Your task to perform on an android device: turn on airplane mode Image 0: 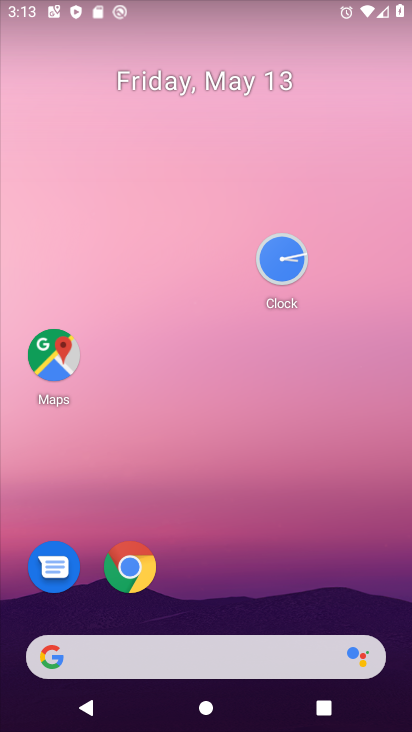
Step 0: click (89, 571)
Your task to perform on an android device: turn on airplane mode Image 1: 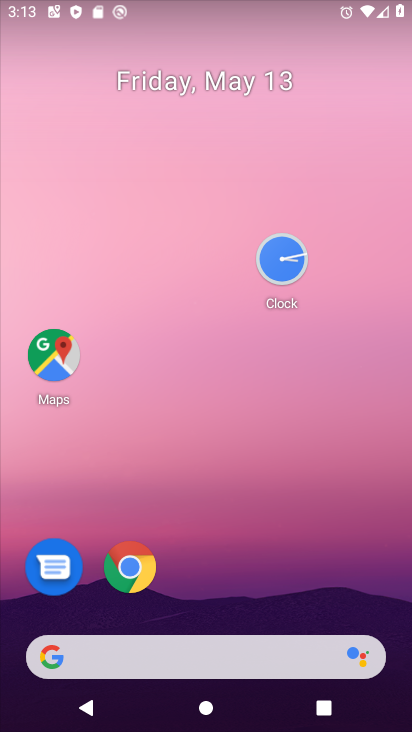
Step 1: click (136, 573)
Your task to perform on an android device: turn on airplane mode Image 2: 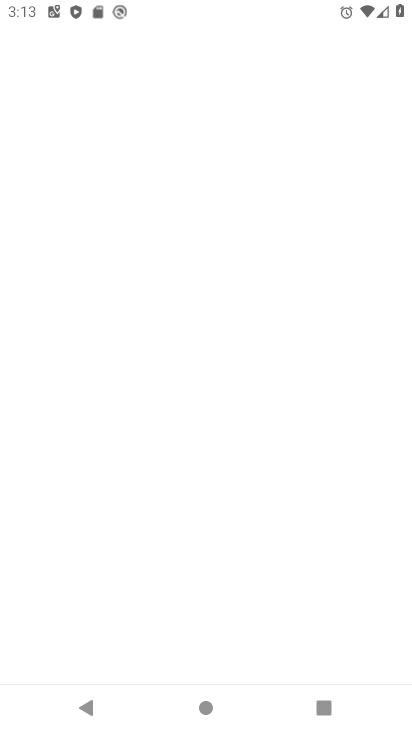
Step 2: press home button
Your task to perform on an android device: turn on airplane mode Image 3: 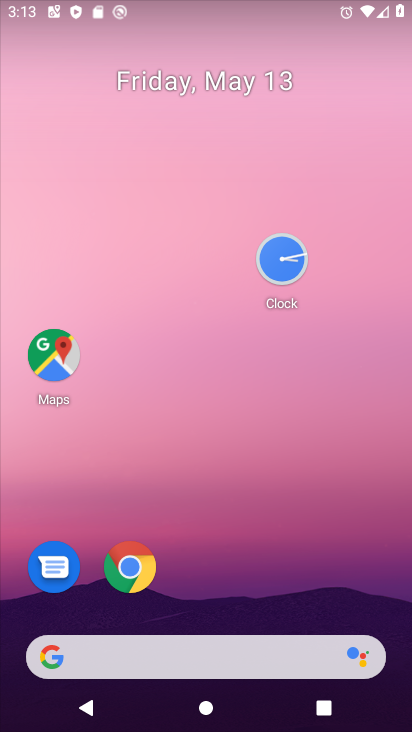
Step 3: drag from (288, 544) to (289, 49)
Your task to perform on an android device: turn on airplane mode Image 4: 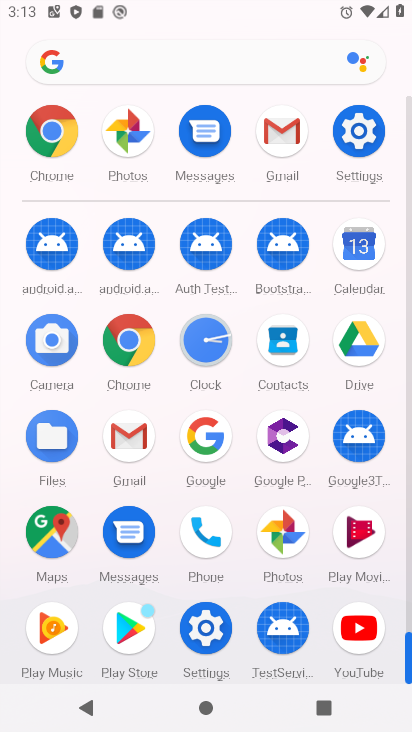
Step 4: click (365, 134)
Your task to perform on an android device: turn on airplane mode Image 5: 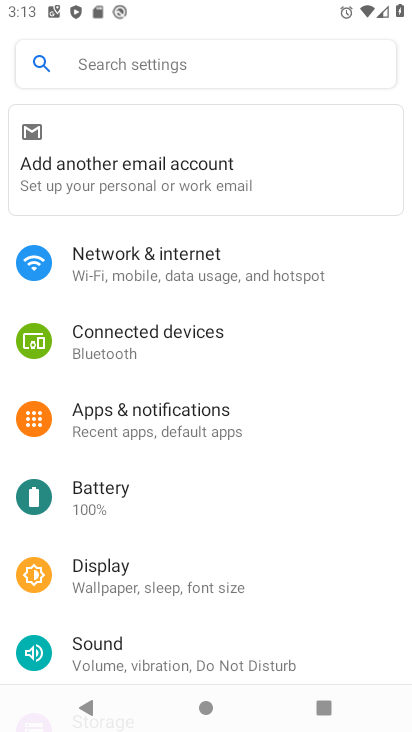
Step 5: click (358, 129)
Your task to perform on an android device: turn on airplane mode Image 6: 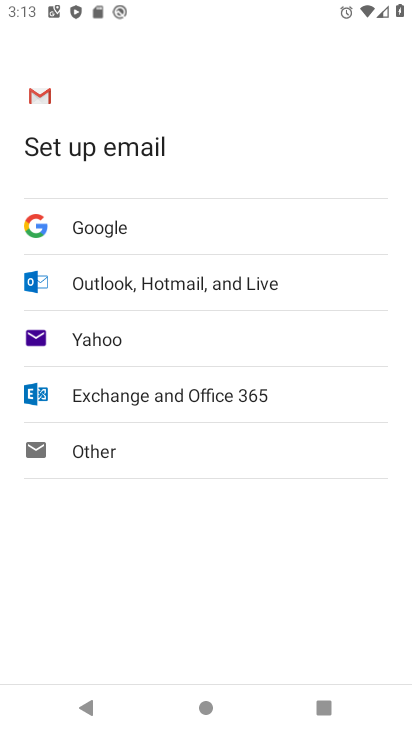
Step 6: press back button
Your task to perform on an android device: turn on airplane mode Image 7: 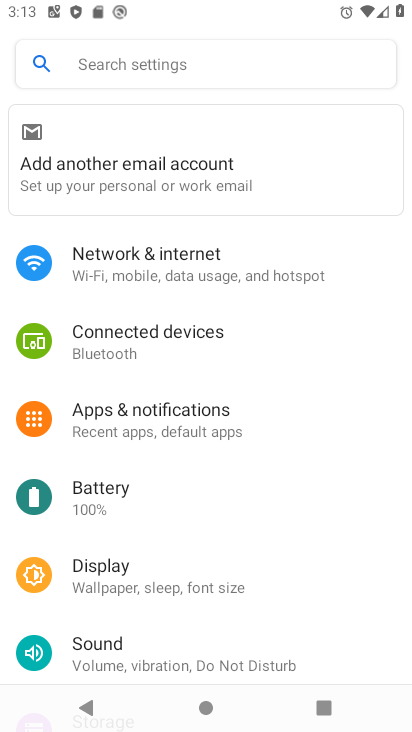
Step 7: click (195, 267)
Your task to perform on an android device: turn on airplane mode Image 8: 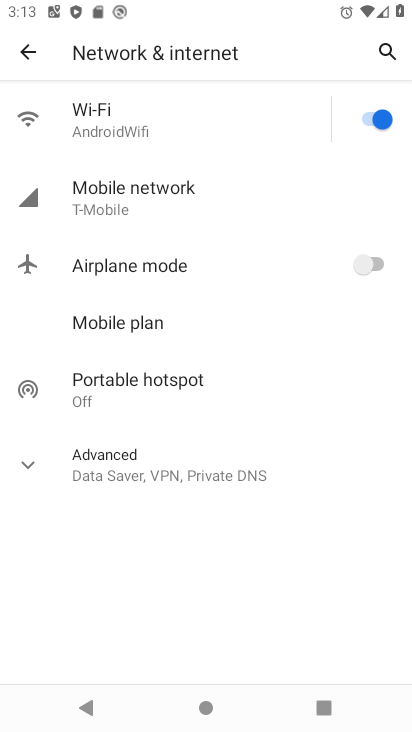
Step 8: click (347, 258)
Your task to perform on an android device: turn on airplane mode Image 9: 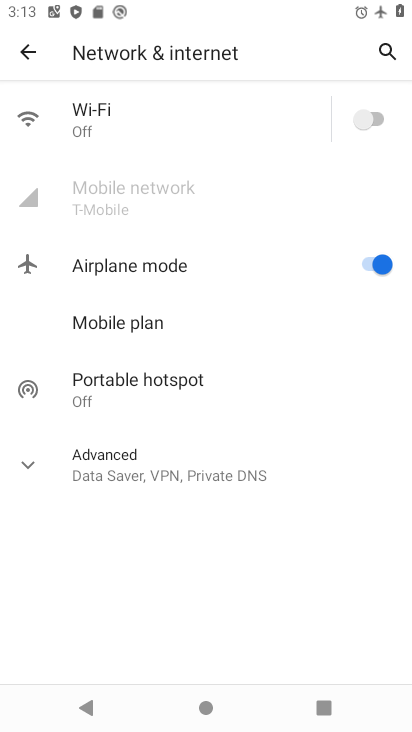
Step 9: task complete